Your task to perform on an android device: Open the calendar app, open the side menu, and click the "Day" option Image 0: 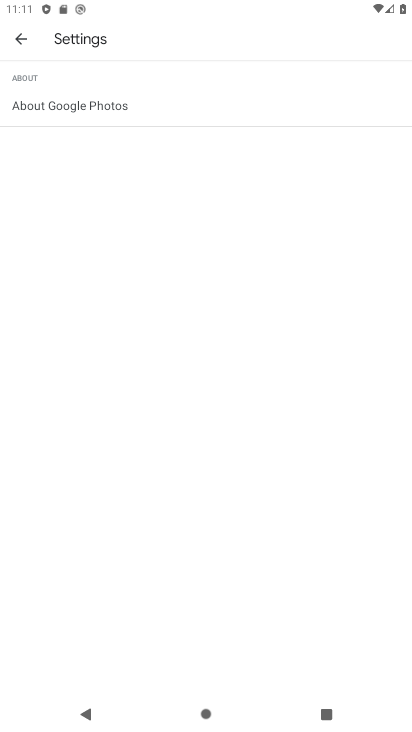
Step 0: press home button
Your task to perform on an android device: Open the calendar app, open the side menu, and click the "Day" option Image 1: 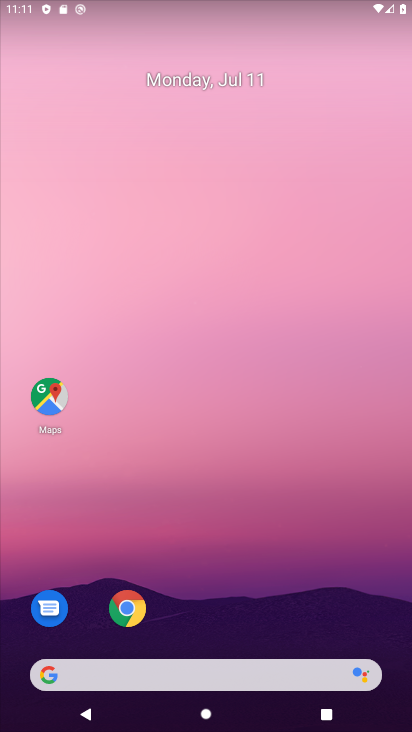
Step 1: click (168, 83)
Your task to perform on an android device: Open the calendar app, open the side menu, and click the "Day" option Image 2: 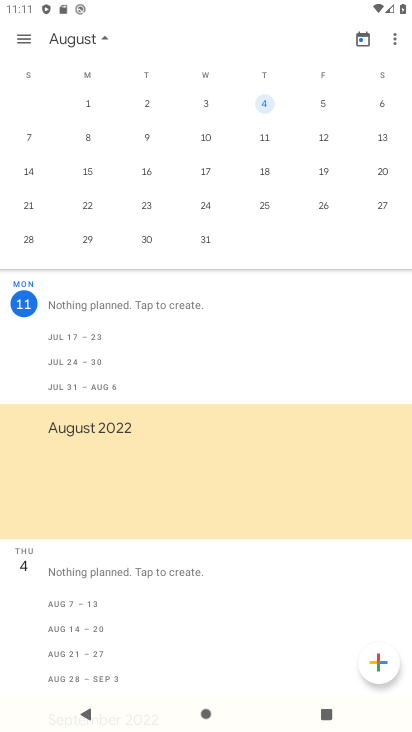
Step 2: click (22, 38)
Your task to perform on an android device: Open the calendar app, open the side menu, and click the "Day" option Image 3: 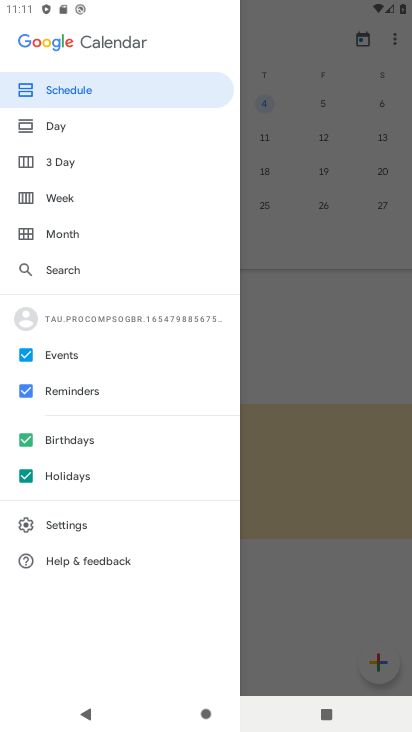
Step 3: click (79, 122)
Your task to perform on an android device: Open the calendar app, open the side menu, and click the "Day" option Image 4: 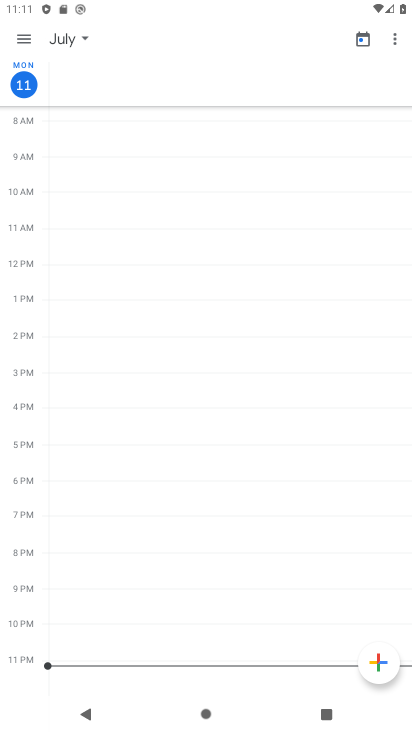
Step 4: task complete